Your task to perform on an android device: add a label to a message in the gmail app Image 0: 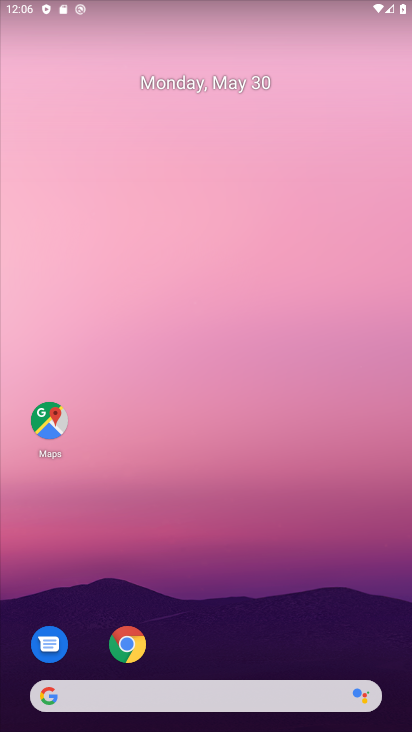
Step 0: drag from (204, 668) to (284, 144)
Your task to perform on an android device: add a label to a message in the gmail app Image 1: 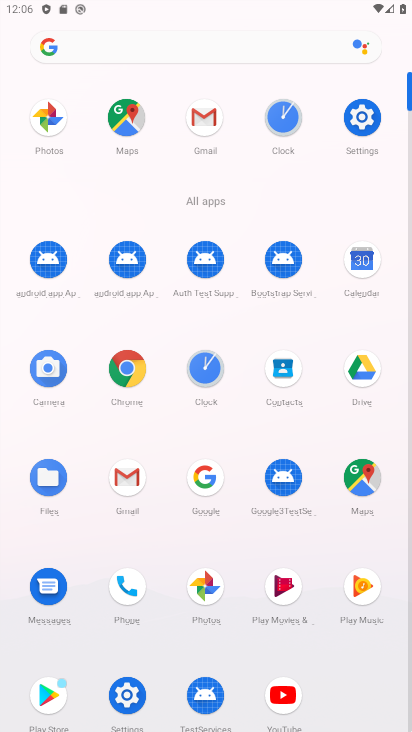
Step 1: click (129, 474)
Your task to perform on an android device: add a label to a message in the gmail app Image 2: 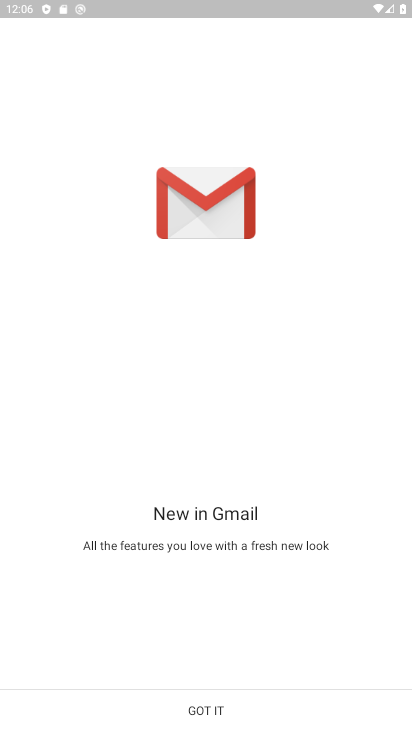
Step 2: click (230, 729)
Your task to perform on an android device: add a label to a message in the gmail app Image 3: 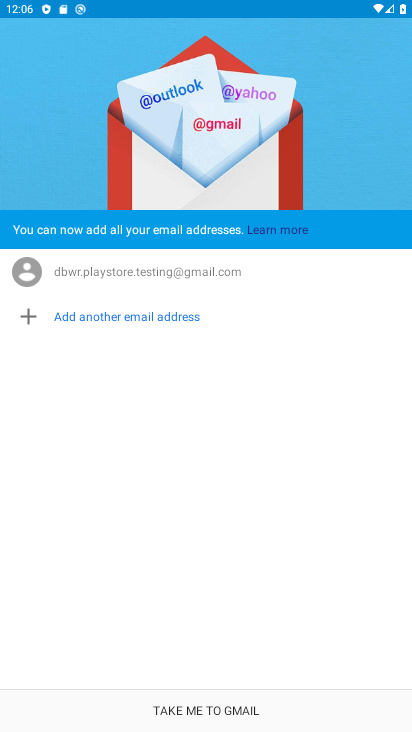
Step 3: click (233, 718)
Your task to perform on an android device: add a label to a message in the gmail app Image 4: 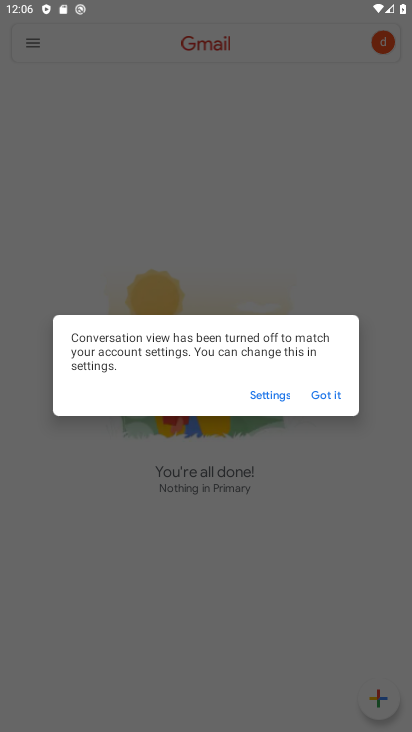
Step 4: click (319, 396)
Your task to perform on an android device: add a label to a message in the gmail app Image 5: 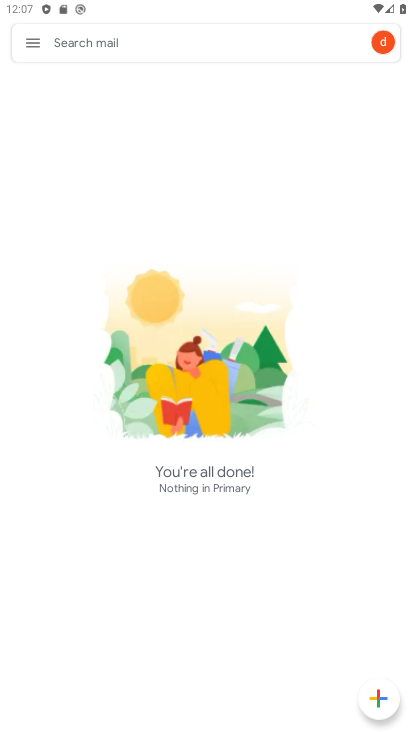
Step 5: click (30, 44)
Your task to perform on an android device: add a label to a message in the gmail app Image 6: 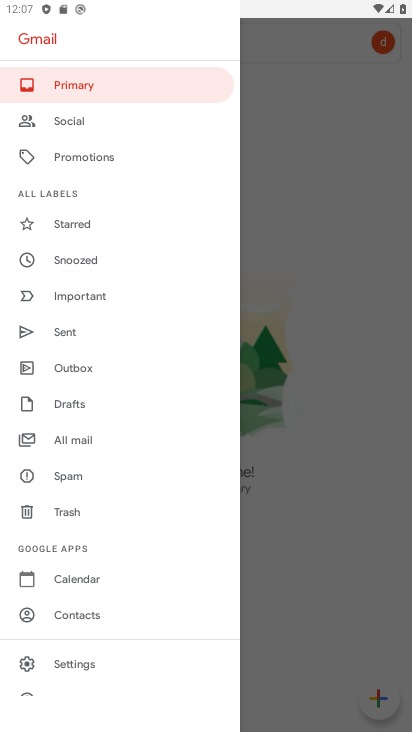
Step 6: click (95, 441)
Your task to perform on an android device: add a label to a message in the gmail app Image 7: 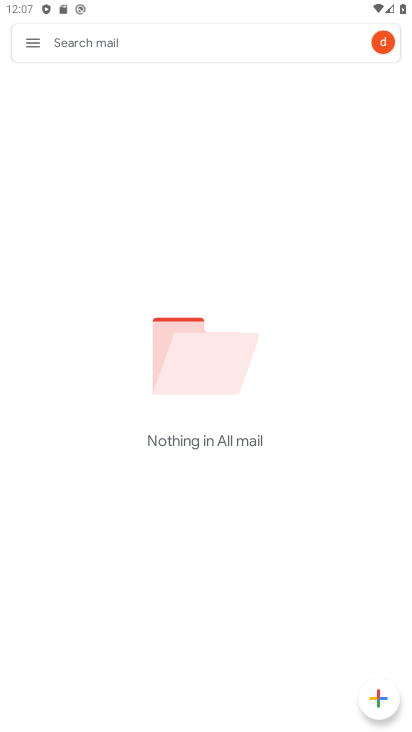
Step 7: task complete